Your task to perform on an android device: choose inbox layout in the gmail app Image 0: 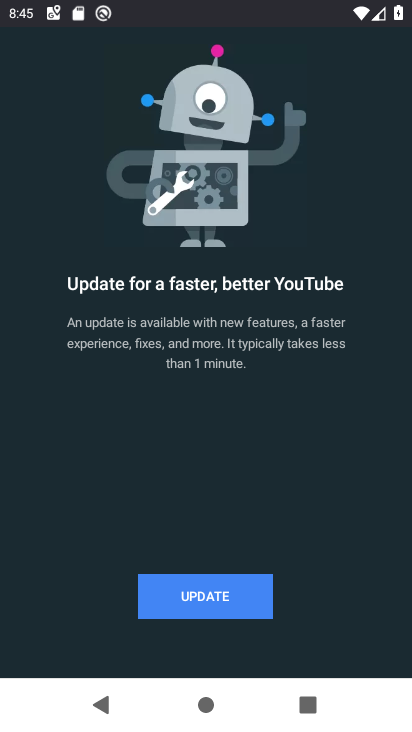
Step 0: press home button
Your task to perform on an android device: choose inbox layout in the gmail app Image 1: 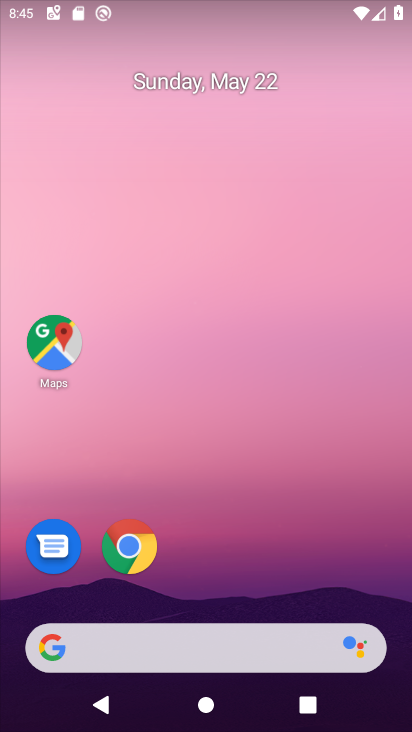
Step 1: drag from (378, 597) to (357, 135)
Your task to perform on an android device: choose inbox layout in the gmail app Image 2: 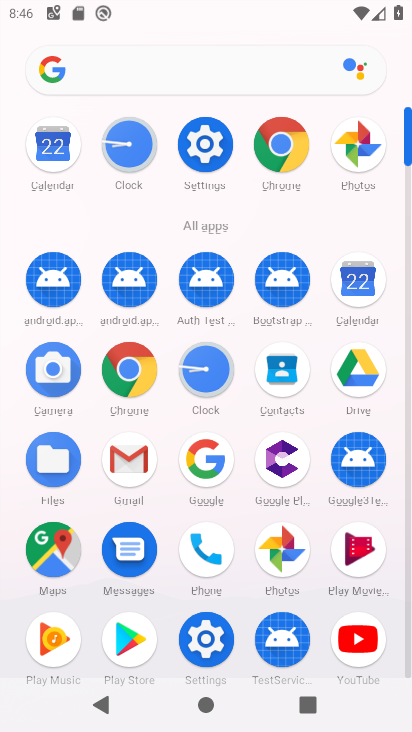
Step 2: click (131, 471)
Your task to perform on an android device: choose inbox layout in the gmail app Image 3: 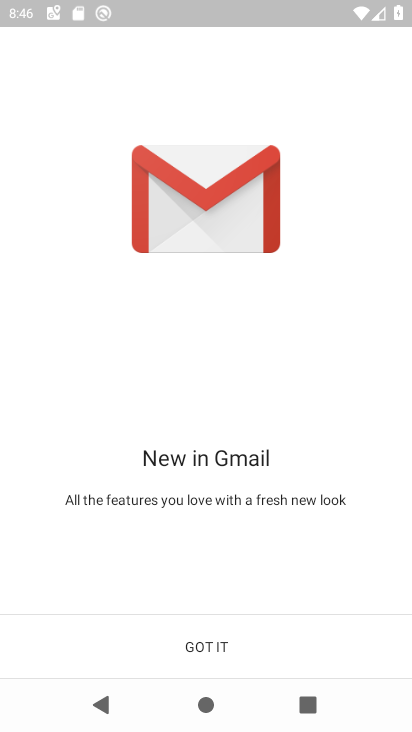
Step 3: click (244, 656)
Your task to perform on an android device: choose inbox layout in the gmail app Image 4: 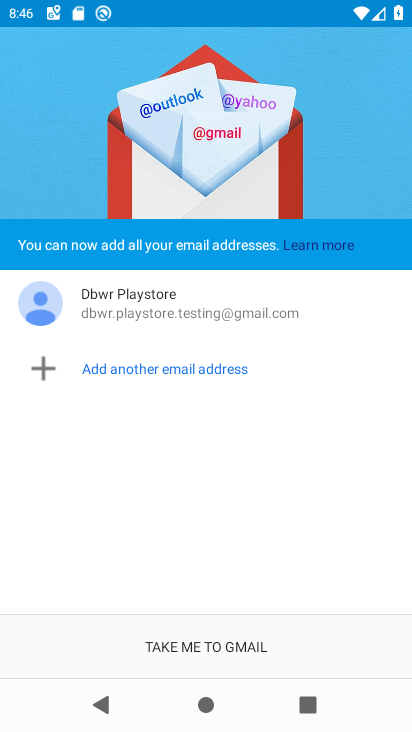
Step 4: click (243, 657)
Your task to perform on an android device: choose inbox layout in the gmail app Image 5: 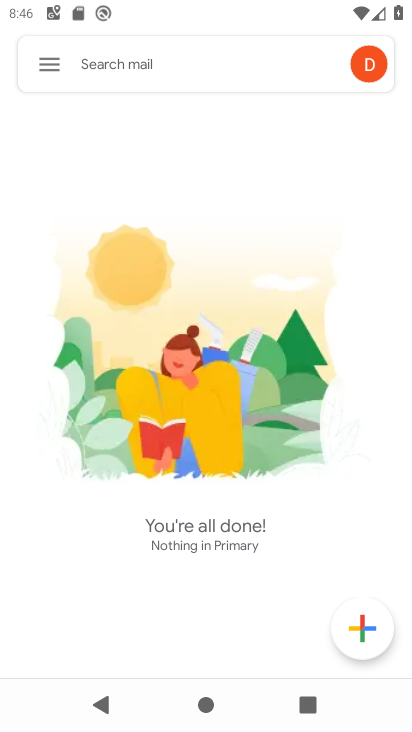
Step 5: click (58, 72)
Your task to perform on an android device: choose inbox layout in the gmail app Image 6: 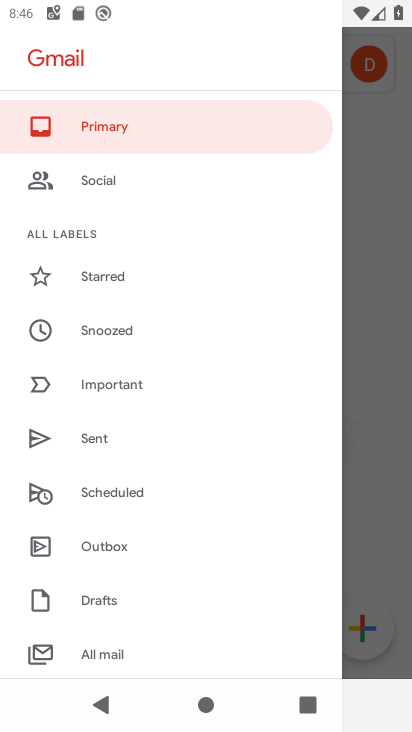
Step 6: drag from (256, 471) to (259, 354)
Your task to perform on an android device: choose inbox layout in the gmail app Image 7: 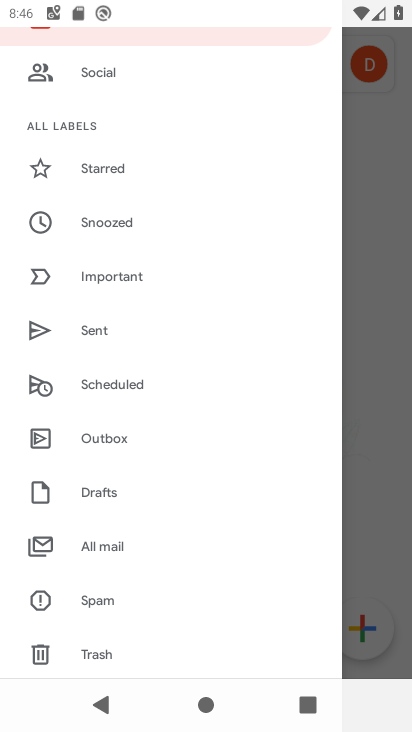
Step 7: drag from (276, 499) to (276, 378)
Your task to perform on an android device: choose inbox layout in the gmail app Image 8: 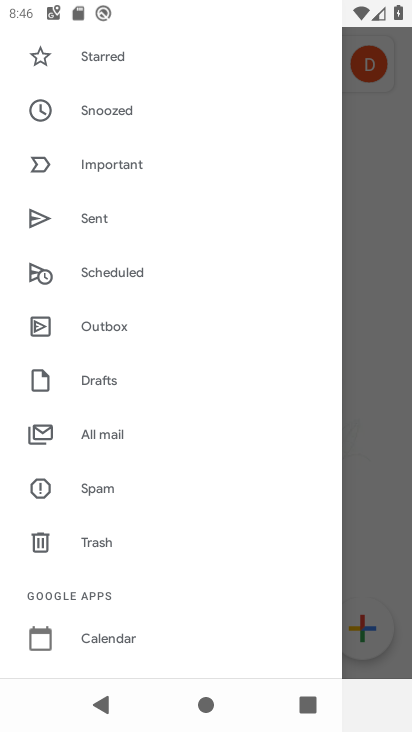
Step 8: drag from (275, 486) to (271, 392)
Your task to perform on an android device: choose inbox layout in the gmail app Image 9: 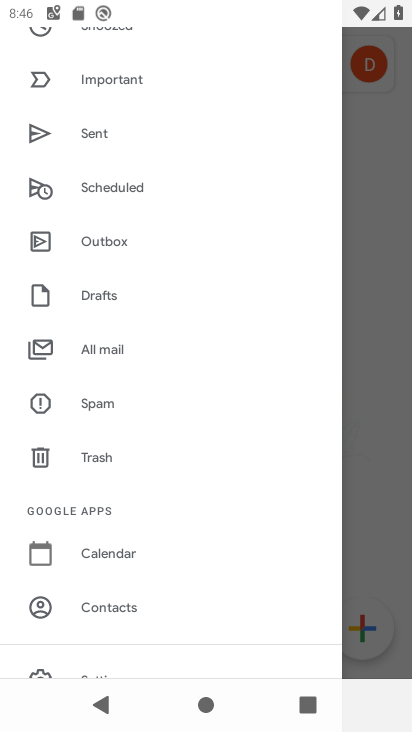
Step 9: drag from (267, 479) to (257, 299)
Your task to perform on an android device: choose inbox layout in the gmail app Image 10: 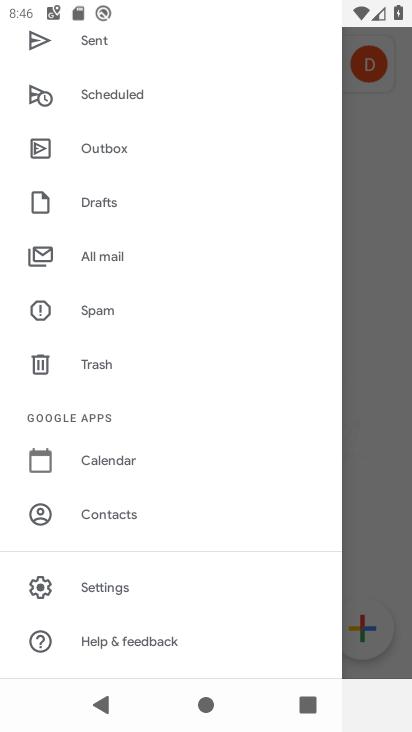
Step 10: drag from (253, 440) to (244, 319)
Your task to perform on an android device: choose inbox layout in the gmail app Image 11: 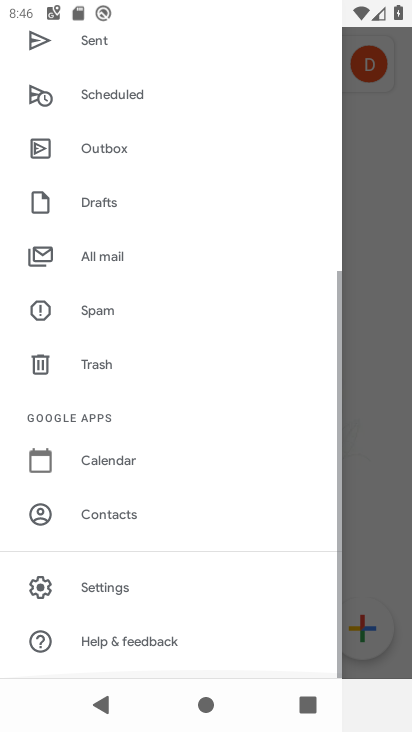
Step 11: drag from (234, 285) to (238, 413)
Your task to perform on an android device: choose inbox layout in the gmail app Image 12: 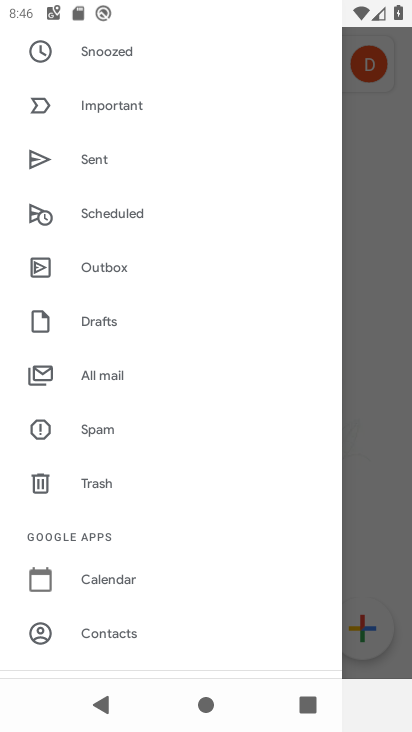
Step 12: drag from (241, 335) to (242, 404)
Your task to perform on an android device: choose inbox layout in the gmail app Image 13: 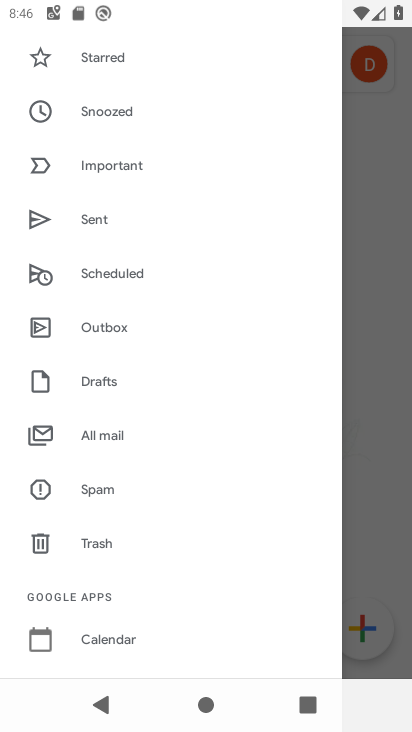
Step 13: drag from (213, 259) to (219, 349)
Your task to perform on an android device: choose inbox layout in the gmail app Image 14: 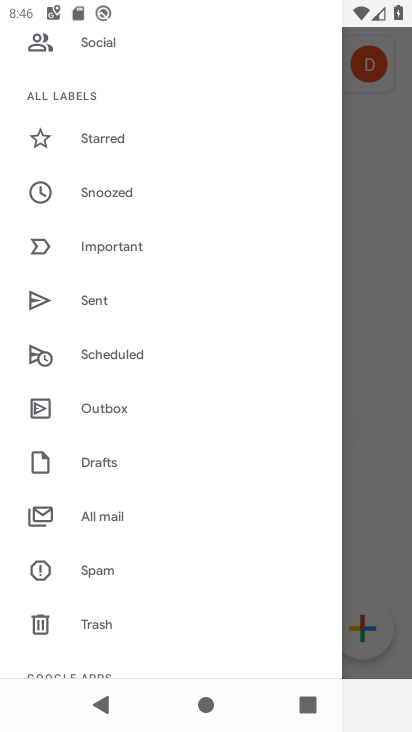
Step 14: drag from (237, 209) to (246, 356)
Your task to perform on an android device: choose inbox layout in the gmail app Image 15: 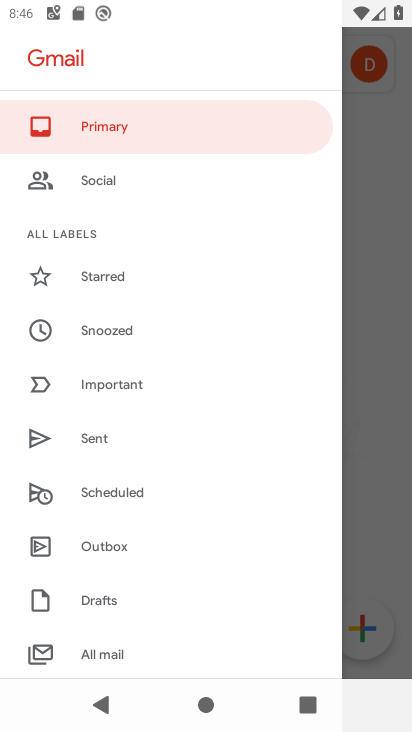
Step 15: drag from (236, 225) to (242, 390)
Your task to perform on an android device: choose inbox layout in the gmail app Image 16: 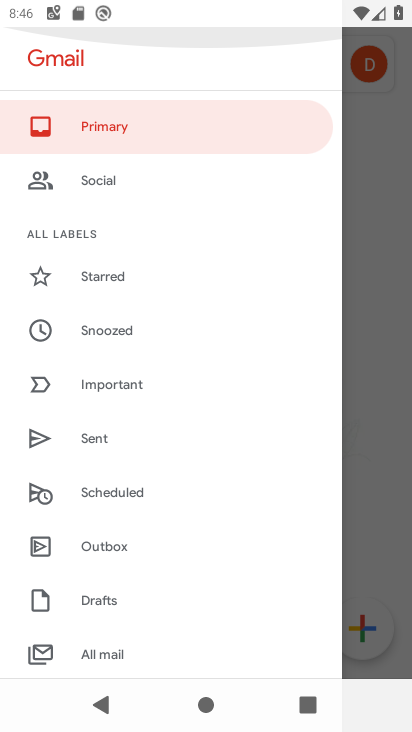
Step 16: drag from (242, 438) to (236, 308)
Your task to perform on an android device: choose inbox layout in the gmail app Image 17: 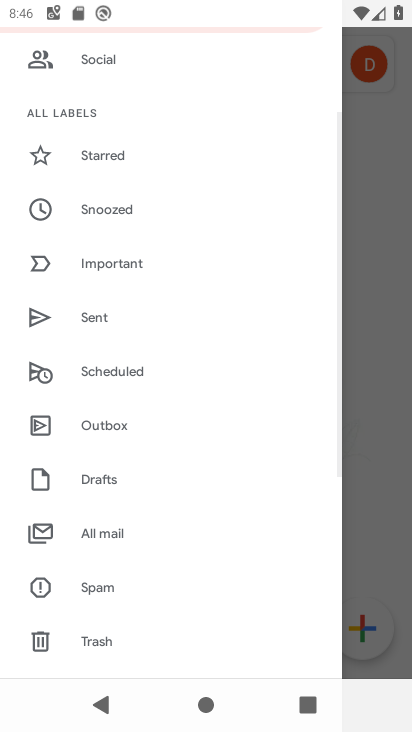
Step 17: drag from (246, 477) to (244, 338)
Your task to perform on an android device: choose inbox layout in the gmail app Image 18: 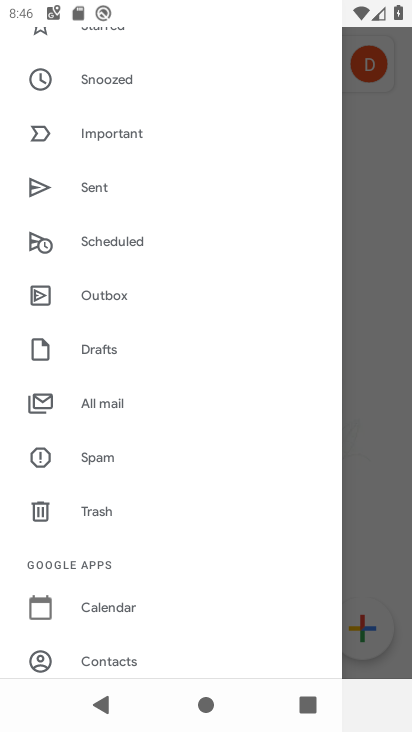
Step 18: drag from (223, 534) to (216, 415)
Your task to perform on an android device: choose inbox layout in the gmail app Image 19: 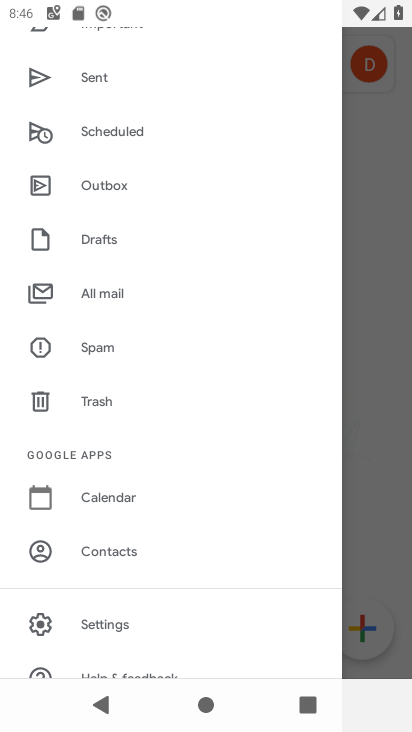
Step 19: drag from (228, 540) to (228, 390)
Your task to perform on an android device: choose inbox layout in the gmail app Image 20: 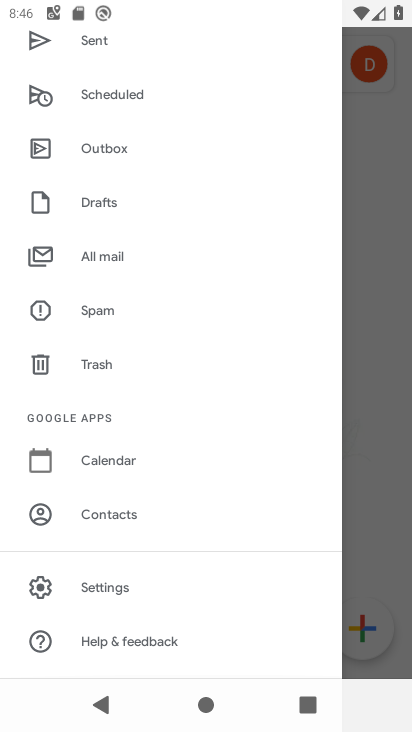
Step 20: click (146, 596)
Your task to perform on an android device: choose inbox layout in the gmail app Image 21: 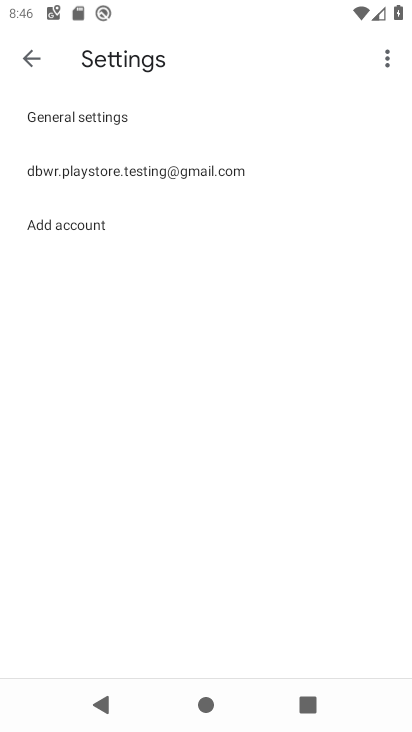
Step 21: click (209, 185)
Your task to perform on an android device: choose inbox layout in the gmail app Image 22: 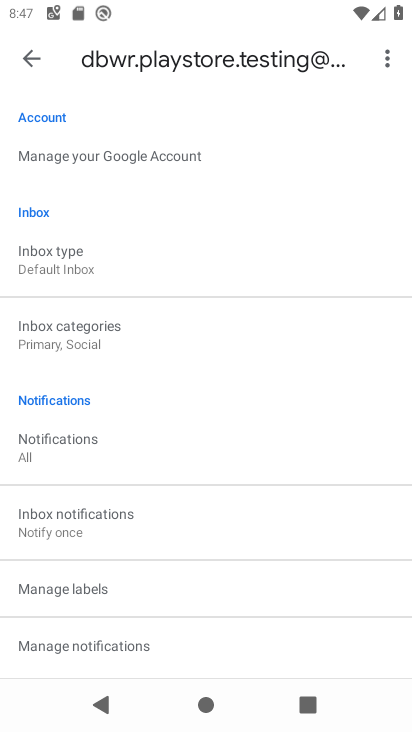
Step 22: click (84, 270)
Your task to perform on an android device: choose inbox layout in the gmail app Image 23: 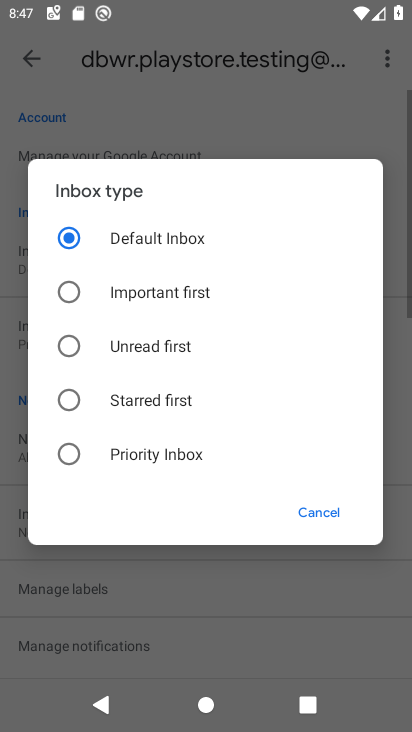
Step 23: click (113, 306)
Your task to perform on an android device: choose inbox layout in the gmail app Image 24: 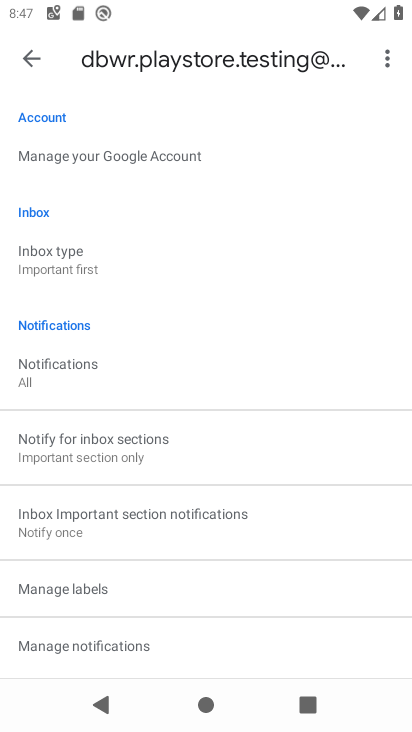
Step 24: task complete